Your task to perform on an android device: Go to Google Image 0: 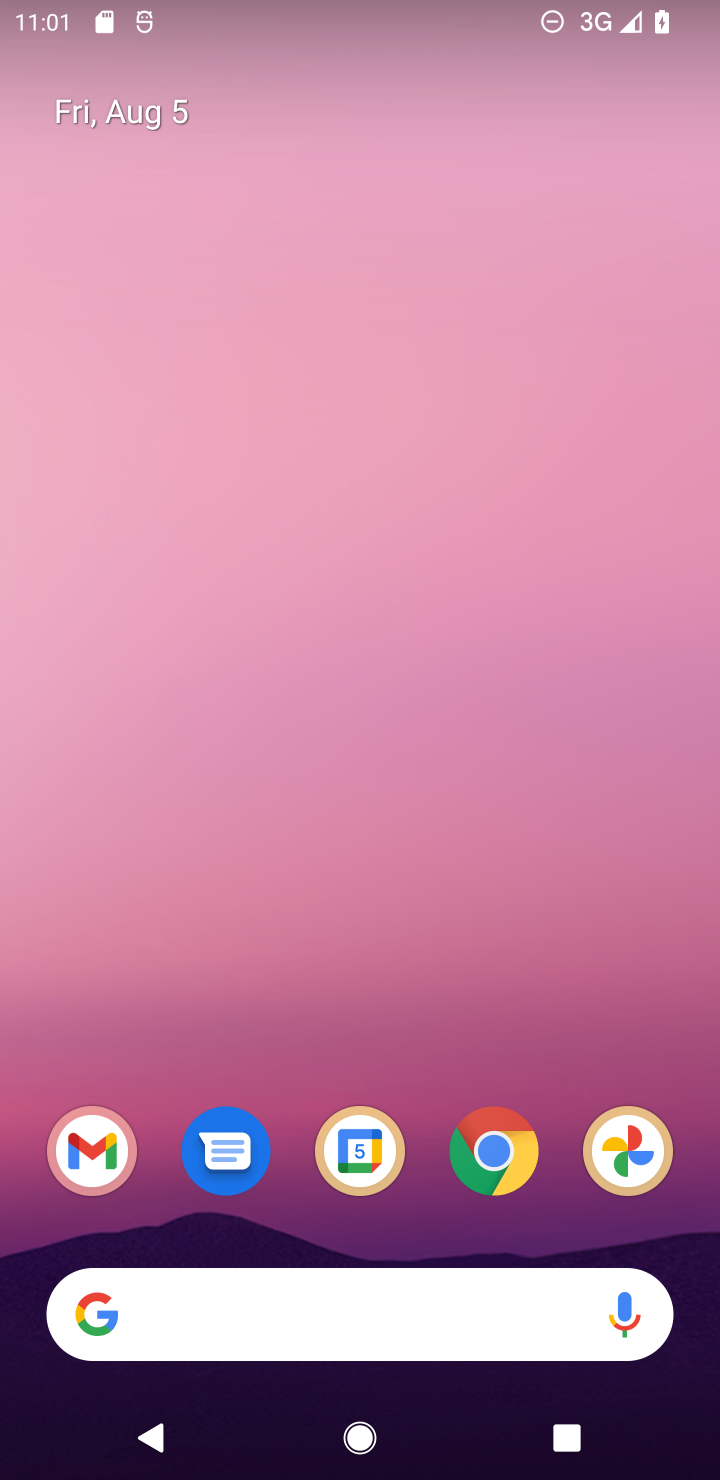
Step 0: click (335, 224)
Your task to perform on an android device: Go to Google Image 1: 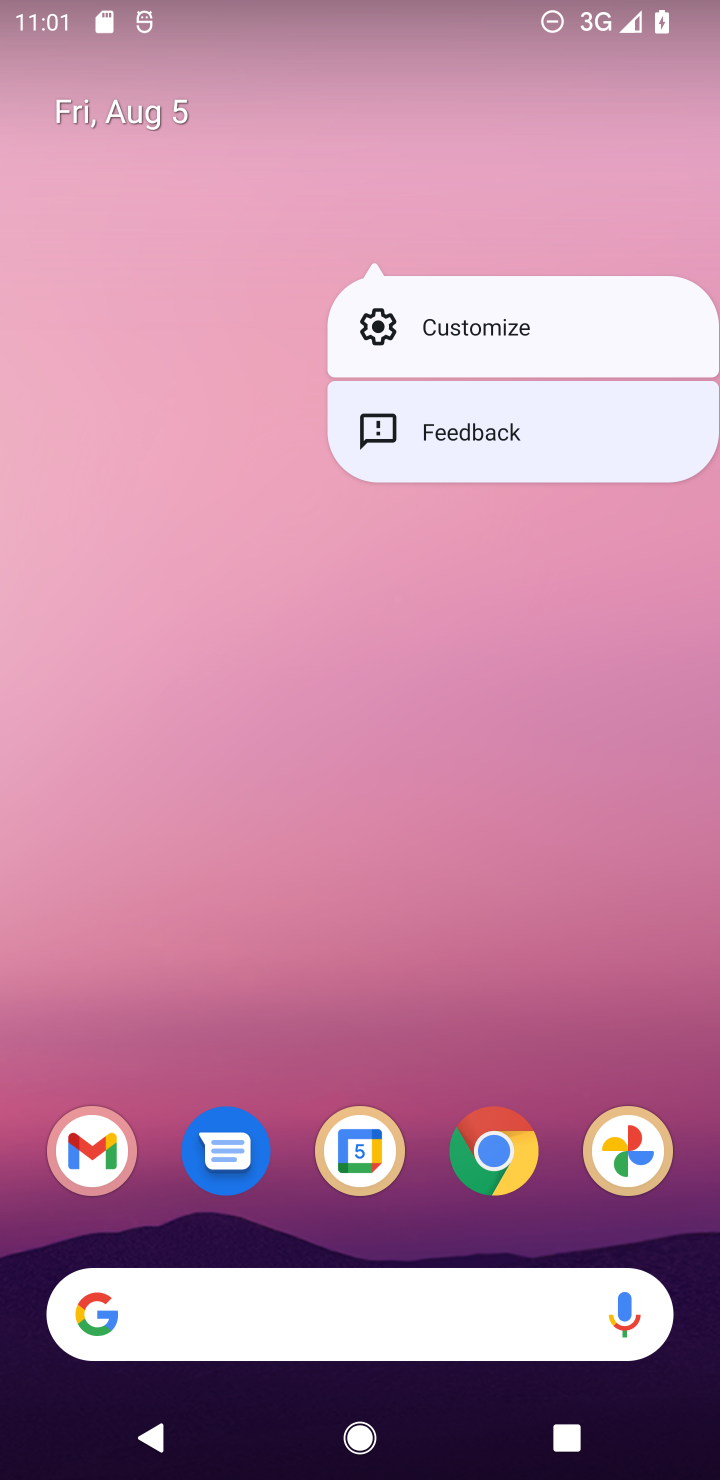
Step 1: click (276, 1204)
Your task to perform on an android device: Go to Google Image 2: 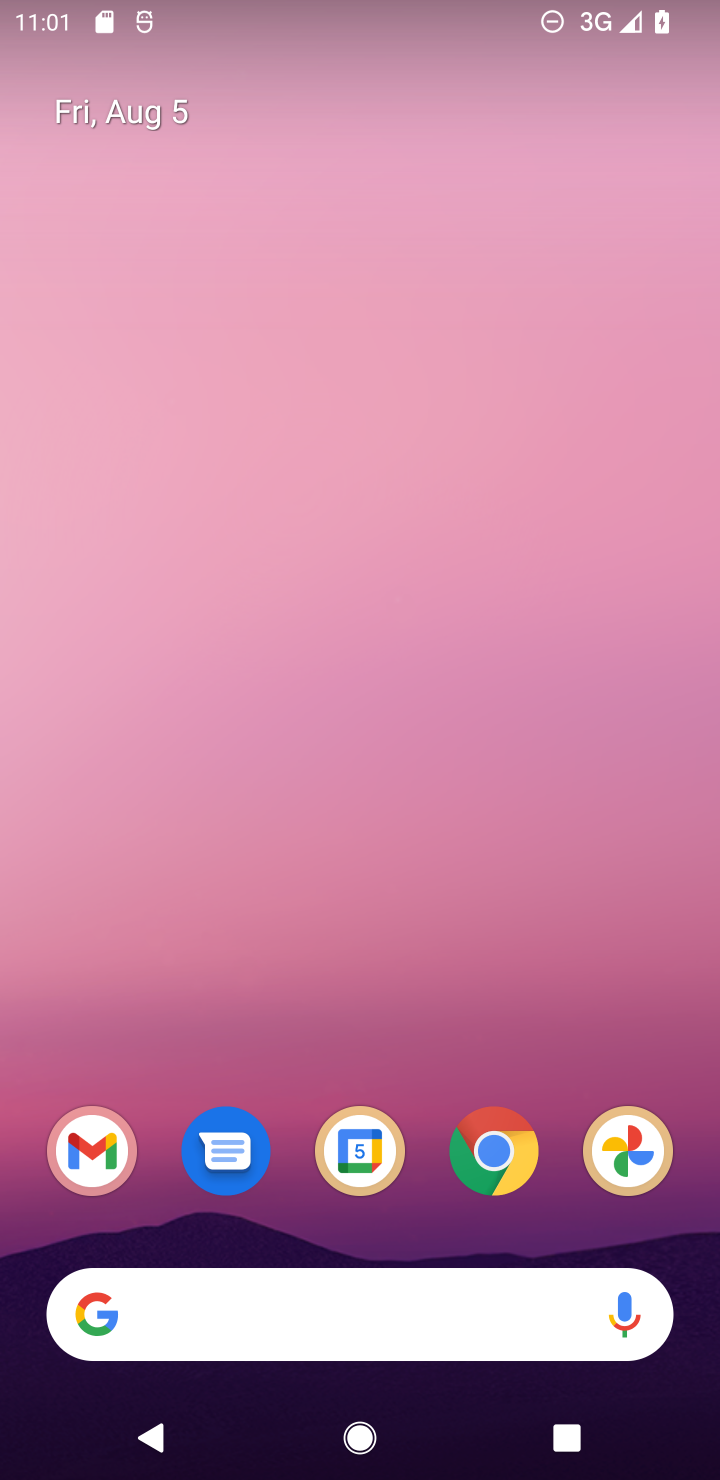
Step 2: drag from (277, 1167) to (474, 69)
Your task to perform on an android device: Go to Google Image 3: 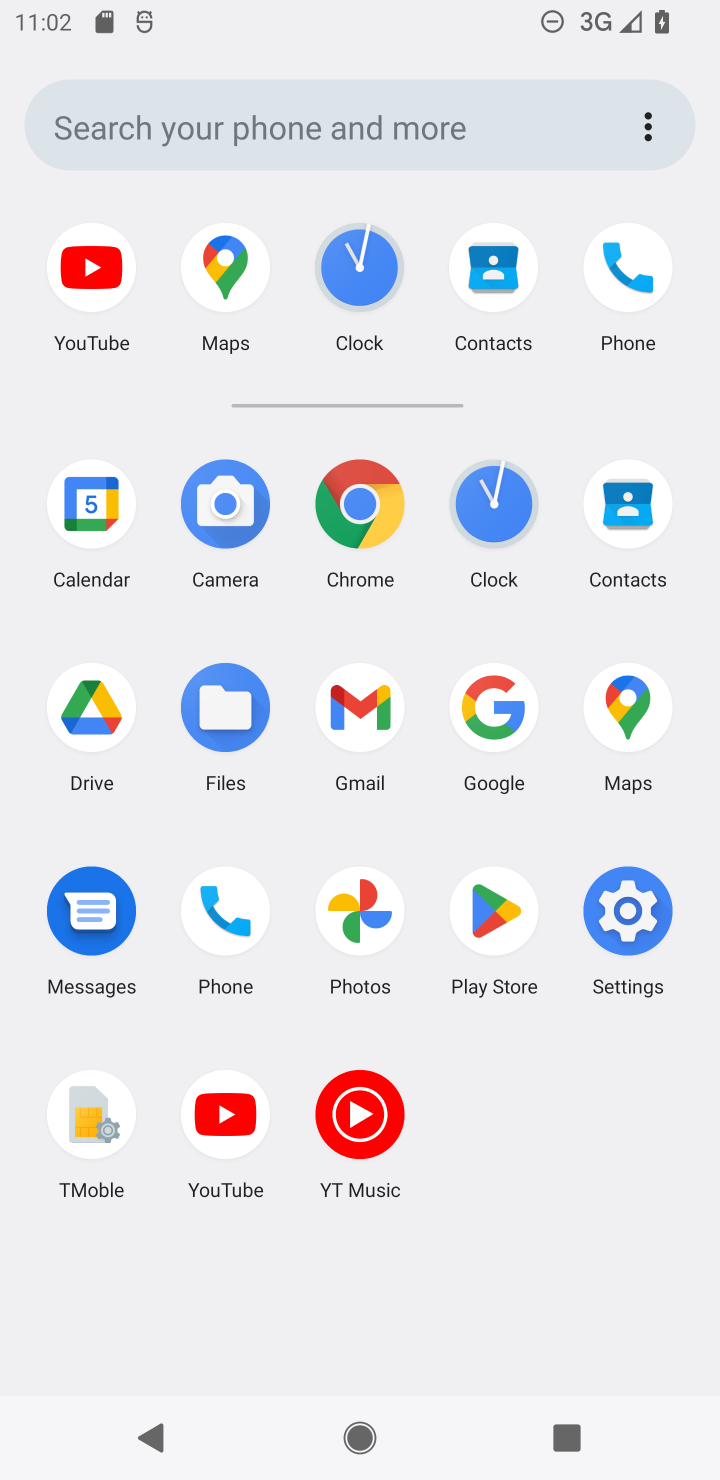
Step 3: click (490, 699)
Your task to perform on an android device: Go to Google Image 4: 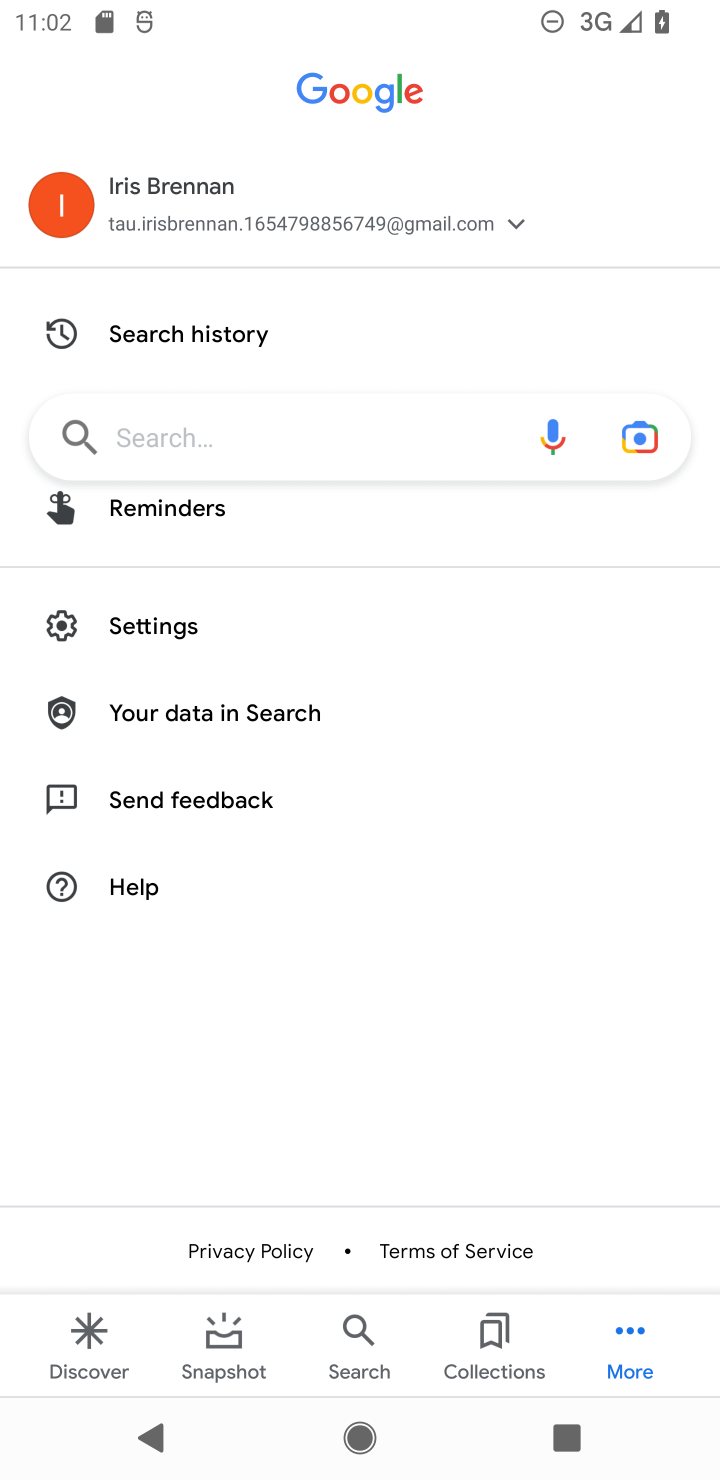
Step 4: task complete